Your task to perform on an android device: change the clock display to show seconds Image 0: 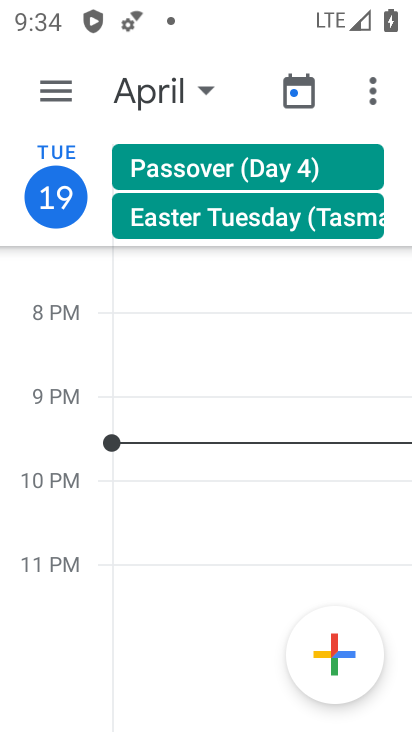
Step 0: drag from (358, 500) to (344, 105)
Your task to perform on an android device: change the clock display to show seconds Image 1: 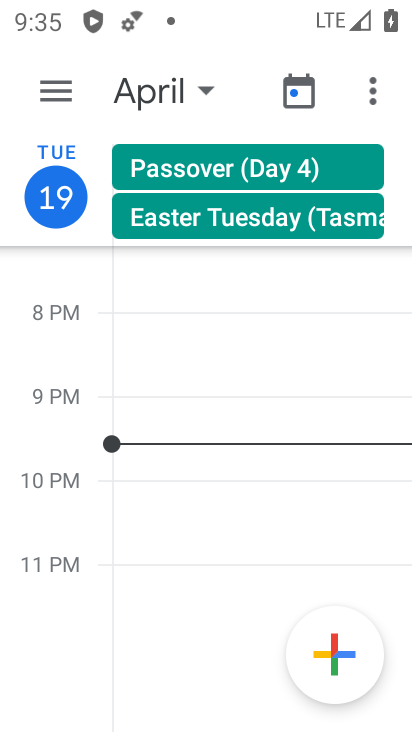
Step 1: press home button
Your task to perform on an android device: change the clock display to show seconds Image 2: 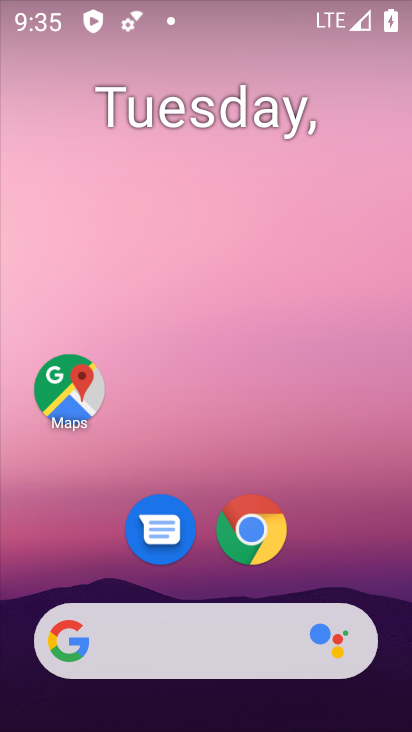
Step 2: drag from (318, 531) to (280, 205)
Your task to perform on an android device: change the clock display to show seconds Image 3: 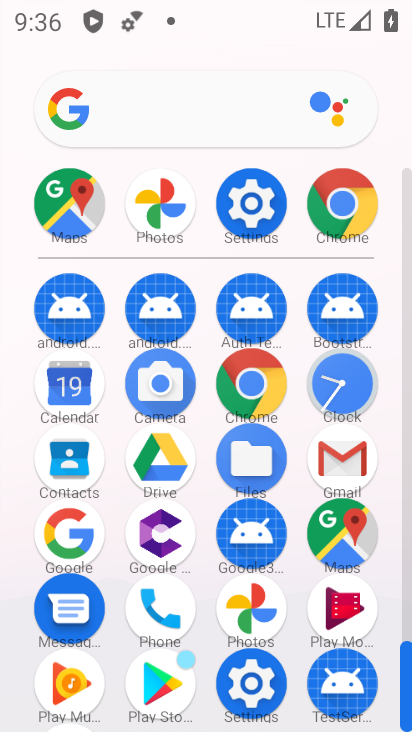
Step 3: click (342, 387)
Your task to perform on an android device: change the clock display to show seconds Image 4: 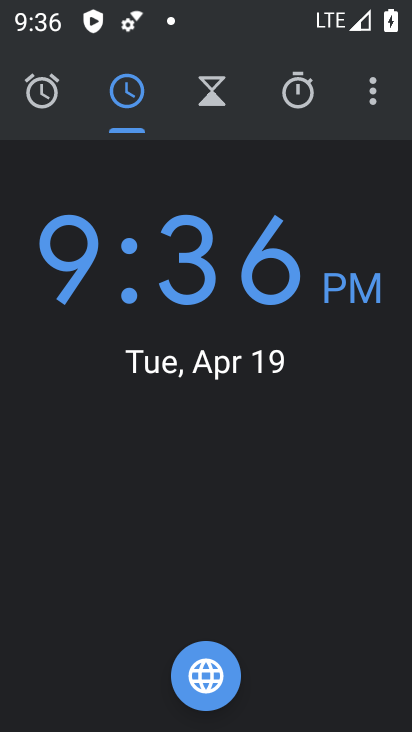
Step 4: click (188, 248)
Your task to perform on an android device: change the clock display to show seconds Image 5: 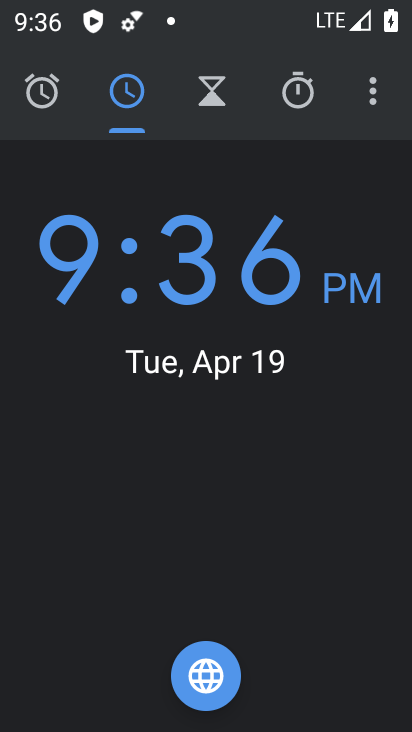
Step 5: click (374, 103)
Your task to perform on an android device: change the clock display to show seconds Image 6: 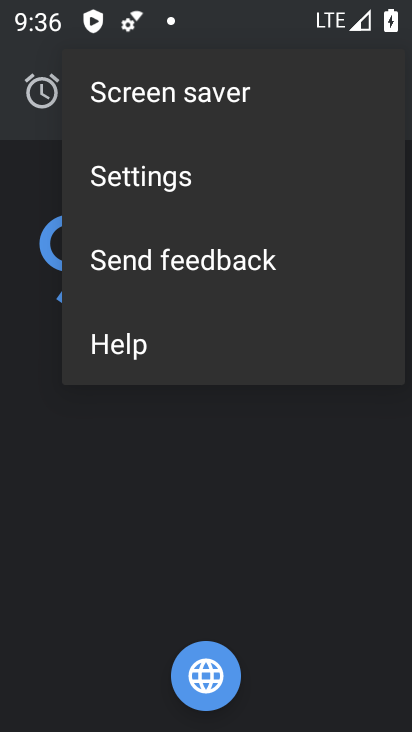
Step 6: click (203, 190)
Your task to perform on an android device: change the clock display to show seconds Image 7: 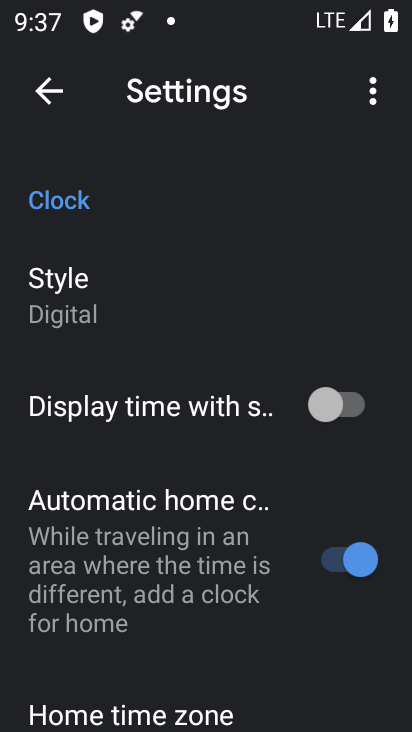
Step 7: click (344, 402)
Your task to perform on an android device: change the clock display to show seconds Image 8: 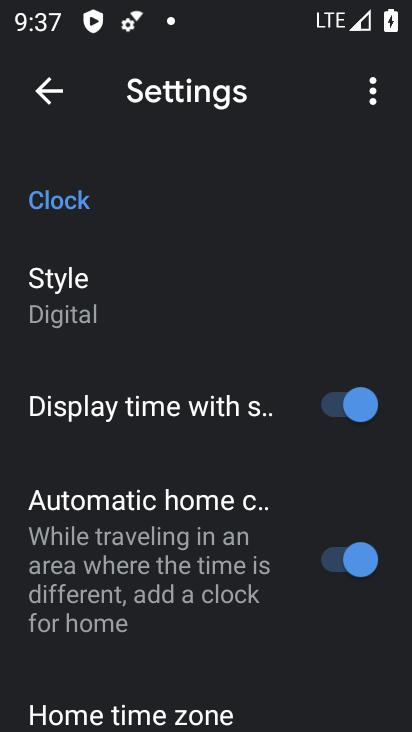
Step 8: task complete